Your task to perform on an android device: toggle wifi Image 0: 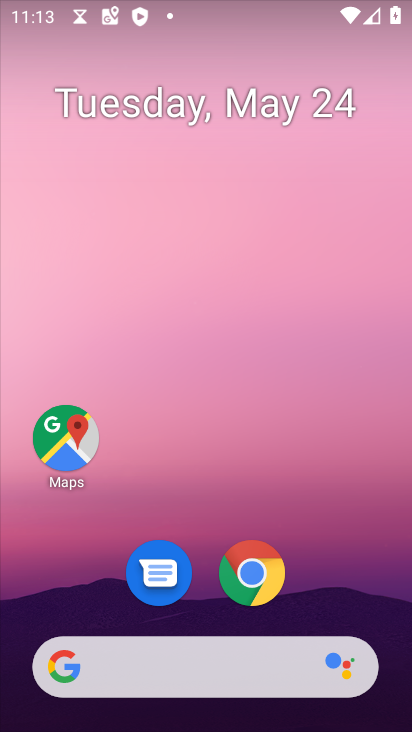
Step 0: drag from (89, 628) to (264, 63)
Your task to perform on an android device: toggle wifi Image 1: 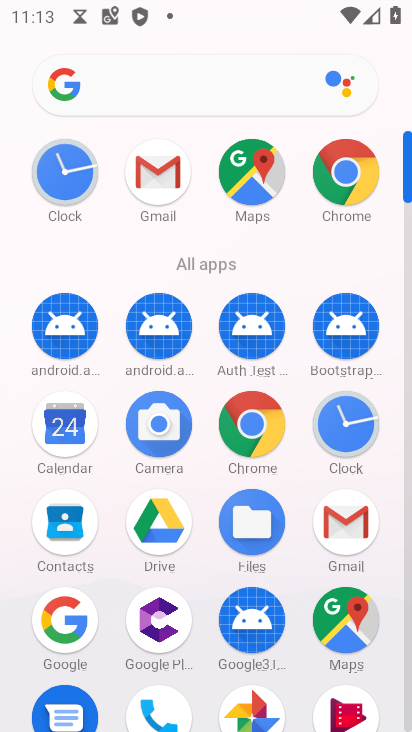
Step 1: drag from (126, 643) to (201, 334)
Your task to perform on an android device: toggle wifi Image 2: 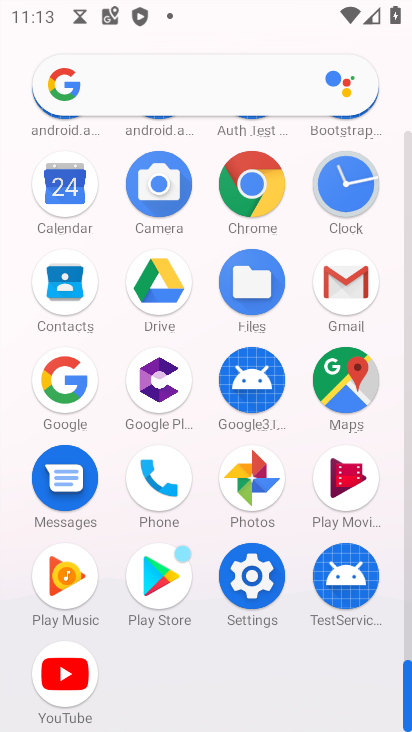
Step 2: click (239, 600)
Your task to perform on an android device: toggle wifi Image 3: 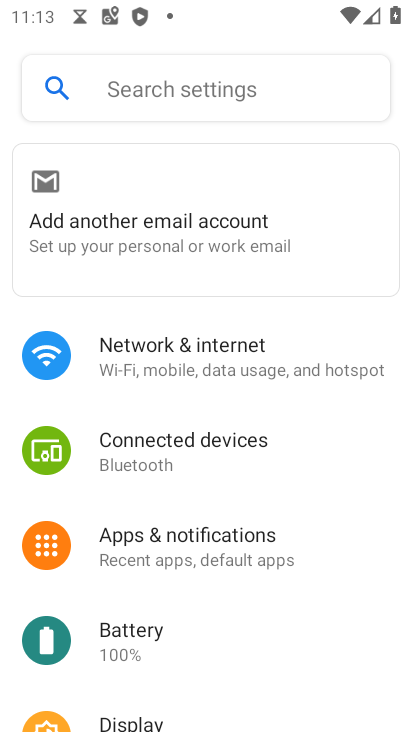
Step 3: click (169, 379)
Your task to perform on an android device: toggle wifi Image 4: 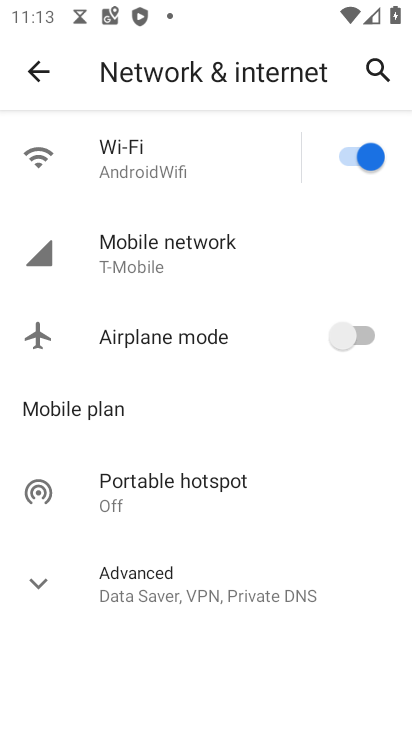
Step 4: click (346, 153)
Your task to perform on an android device: toggle wifi Image 5: 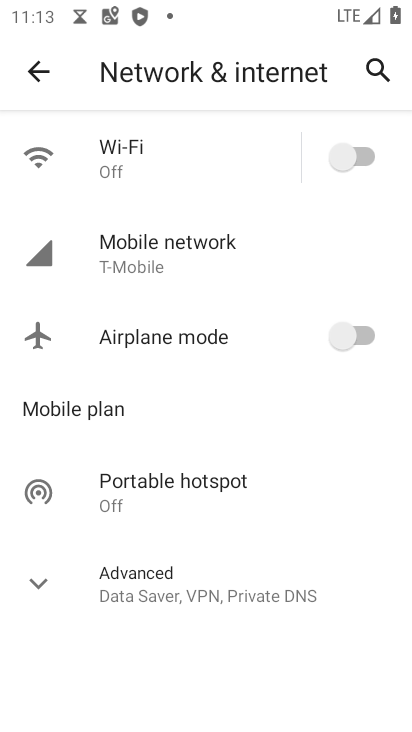
Step 5: task complete